Your task to perform on an android device: Open CNN.com Image 0: 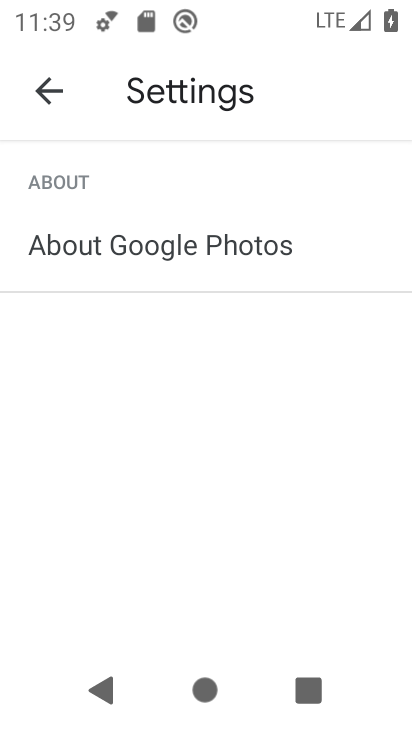
Step 0: press back button
Your task to perform on an android device: Open CNN.com Image 1: 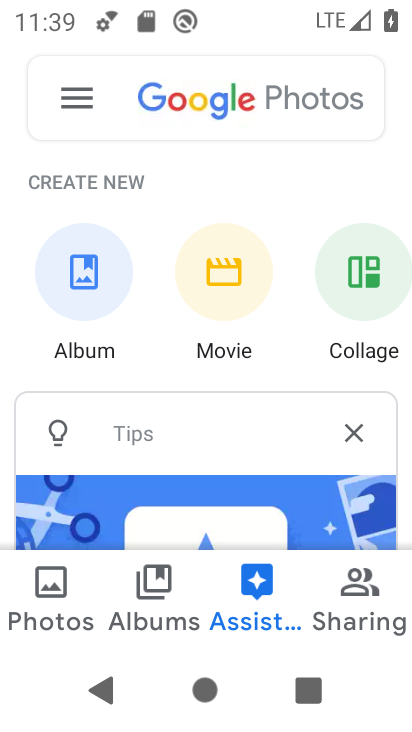
Step 1: press back button
Your task to perform on an android device: Open CNN.com Image 2: 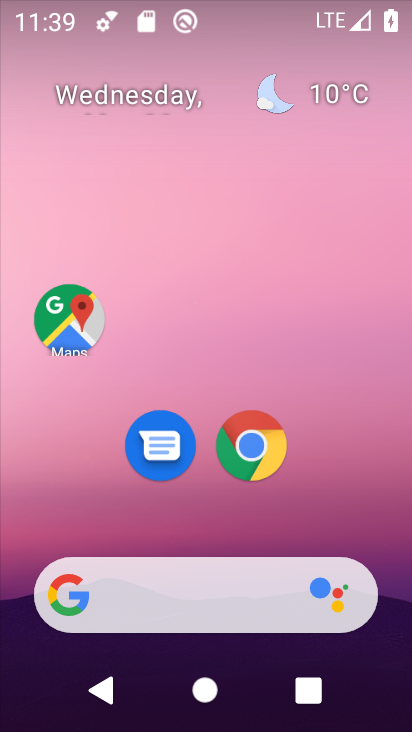
Step 2: click (248, 438)
Your task to perform on an android device: Open CNN.com Image 3: 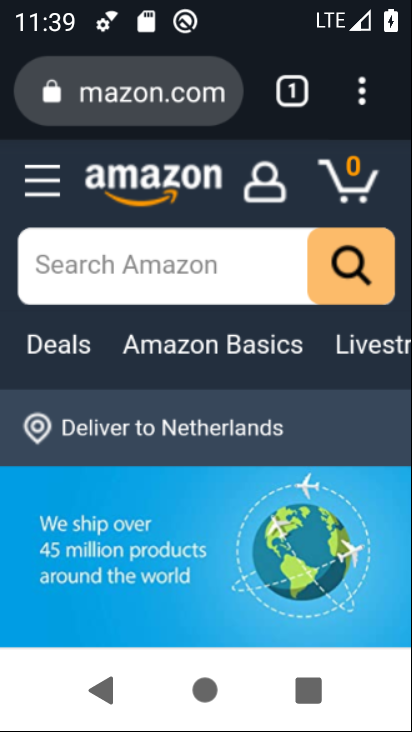
Step 3: click (294, 85)
Your task to perform on an android device: Open CNN.com Image 4: 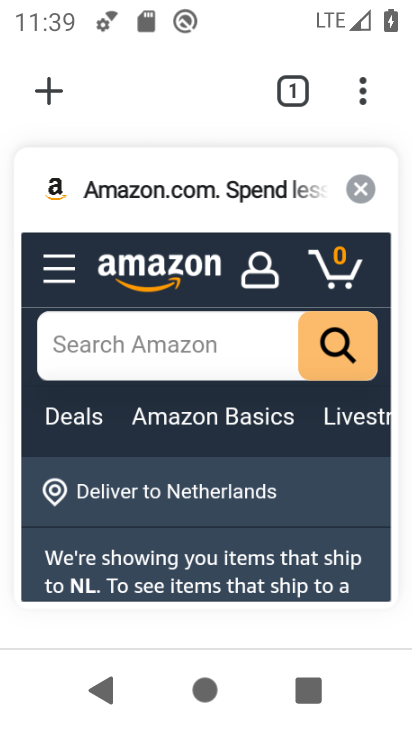
Step 4: click (28, 73)
Your task to perform on an android device: Open CNN.com Image 5: 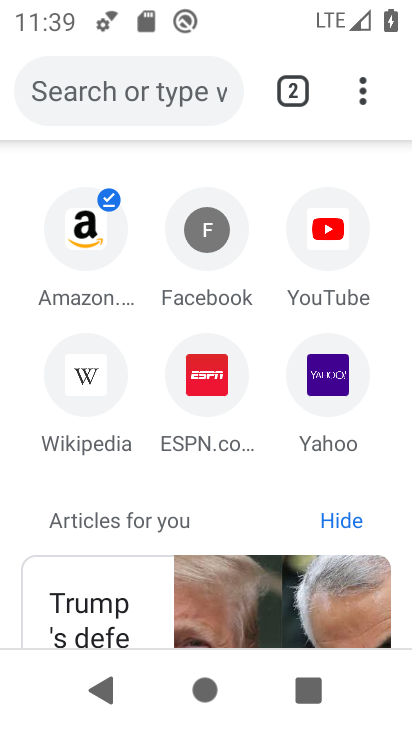
Step 5: click (112, 83)
Your task to perform on an android device: Open CNN.com Image 6: 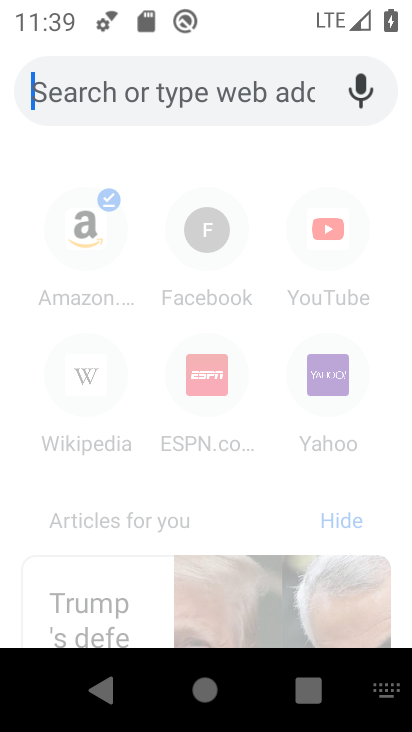
Step 6: type "cnn.com"
Your task to perform on an android device: Open CNN.com Image 7: 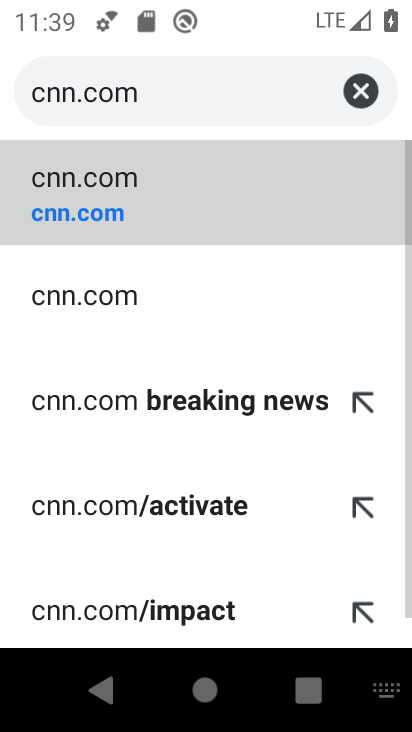
Step 7: click (231, 186)
Your task to perform on an android device: Open CNN.com Image 8: 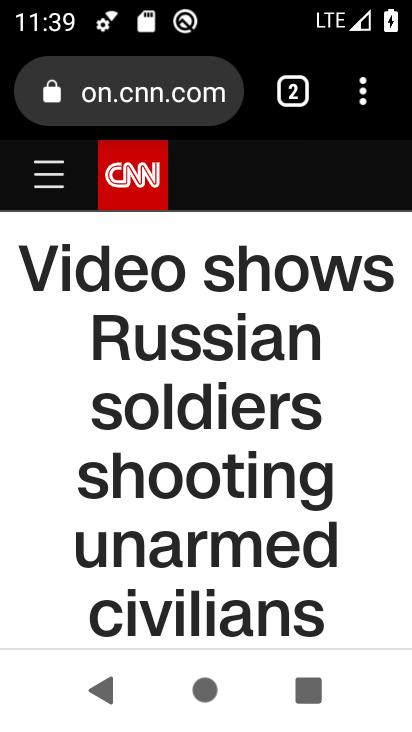
Step 8: task complete